Your task to perform on an android device: Go to CNN.com Image 0: 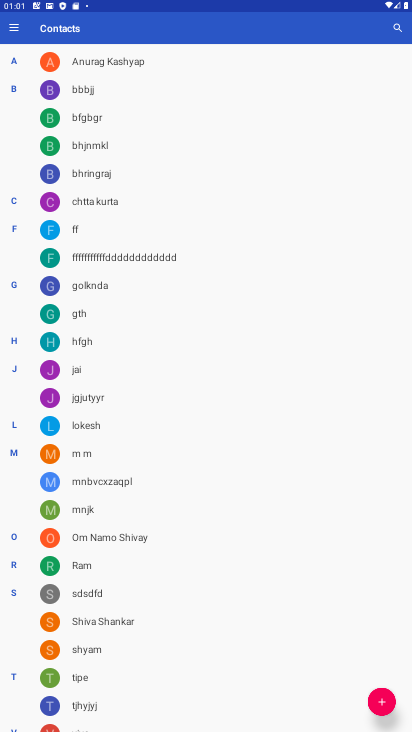
Step 0: press home button
Your task to perform on an android device: Go to CNN.com Image 1: 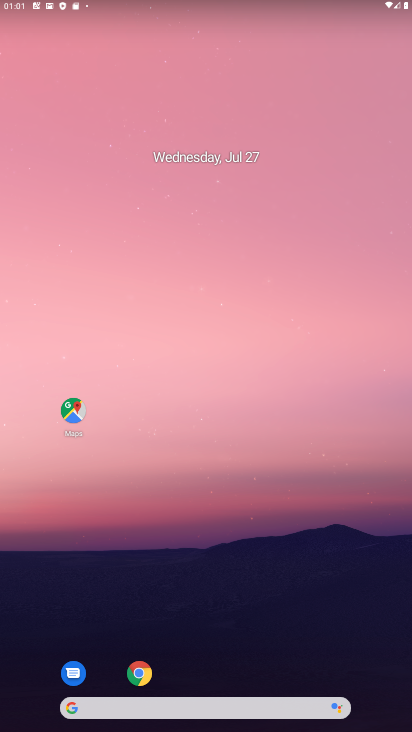
Step 1: click (137, 682)
Your task to perform on an android device: Go to CNN.com Image 2: 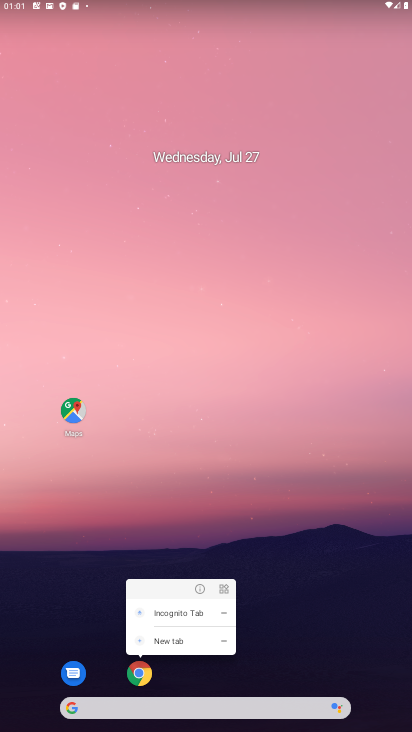
Step 2: click (146, 673)
Your task to perform on an android device: Go to CNN.com Image 3: 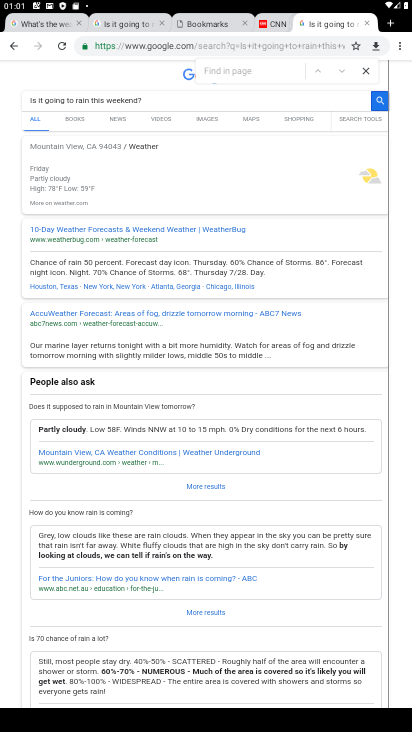
Step 3: click (285, 17)
Your task to perform on an android device: Go to CNN.com Image 4: 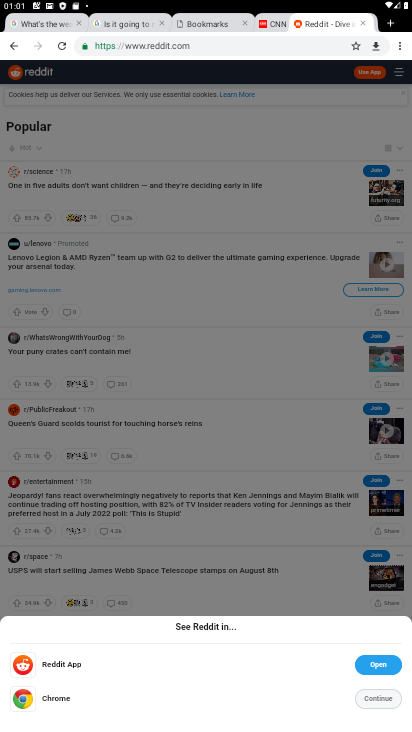
Step 4: click (268, 23)
Your task to perform on an android device: Go to CNN.com Image 5: 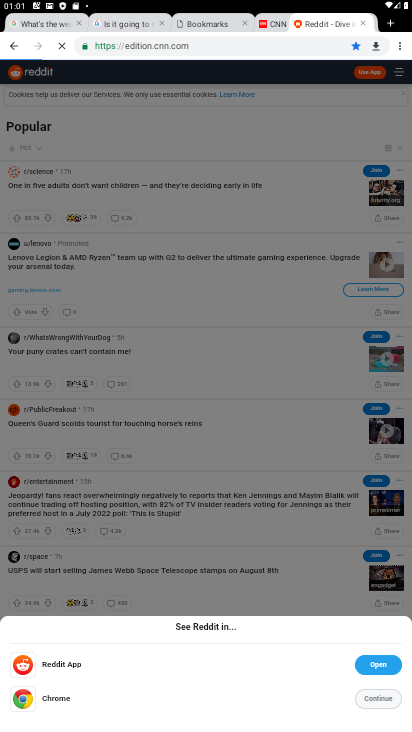
Step 5: click (268, 23)
Your task to perform on an android device: Go to CNN.com Image 6: 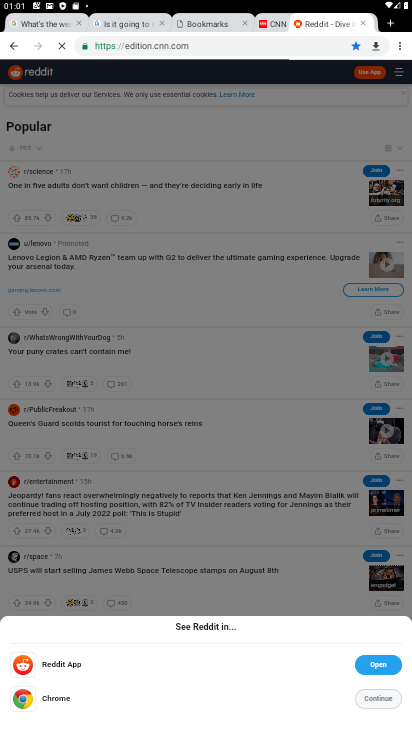
Step 6: click (268, 18)
Your task to perform on an android device: Go to CNN.com Image 7: 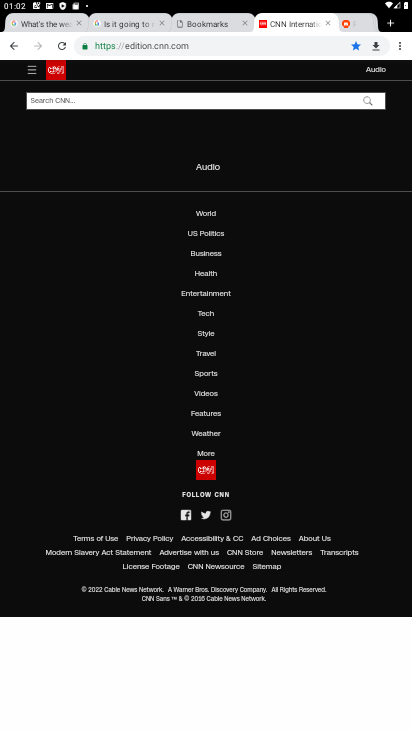
Step 7: task complete